Your task to perform on an android device: open a bookmark in the chrome app Image 0: 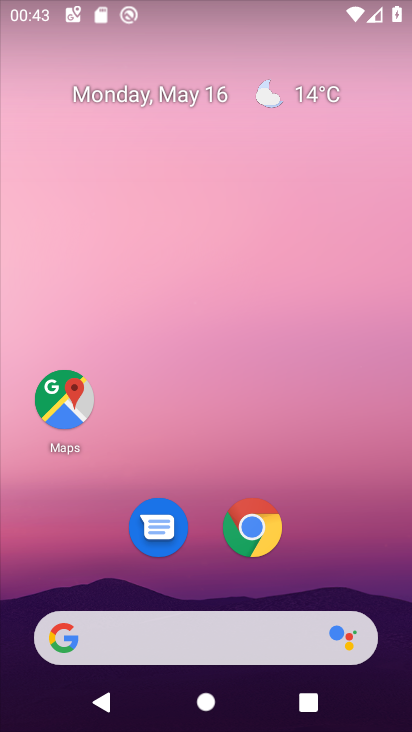
Step 0: click (257, 530)
Your task to perform on an android device: open a bookmark in the chrome app Image 1: 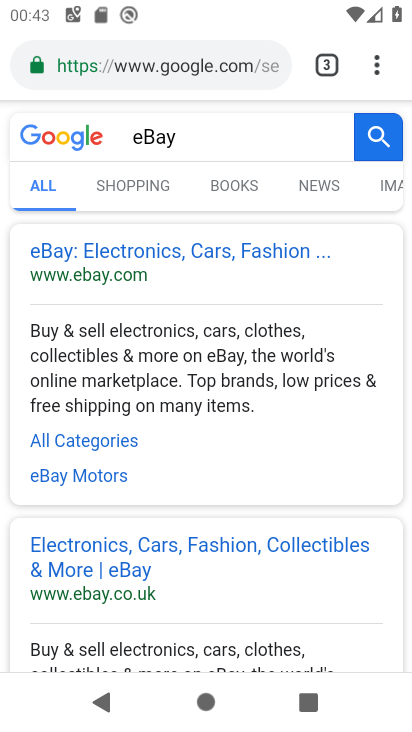
Step 1: click (381, 67)
Your task to perform on an android device: open a bookmark in the chrome app Image 2: 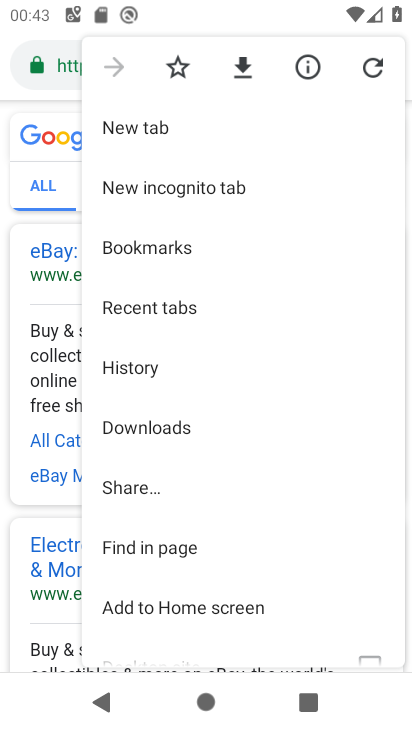
Step 2: click (167, 249)
Your task to perform on an android device: open a bookmark in the chrome app Image 3: 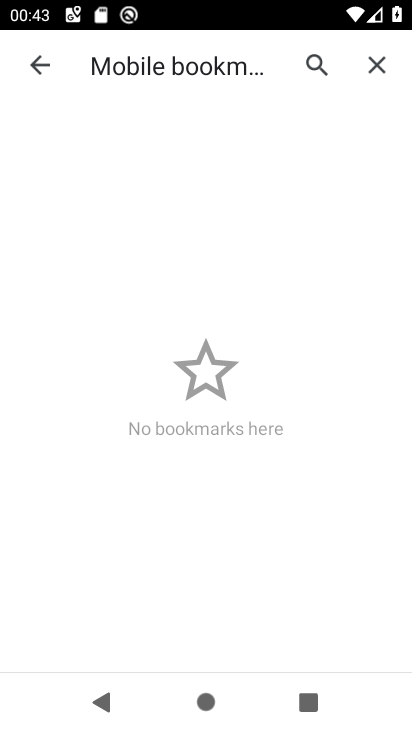
Step 3: click (373, 67)
Your task to perform on an android device: open a bookmark in the chrome app Image 4: 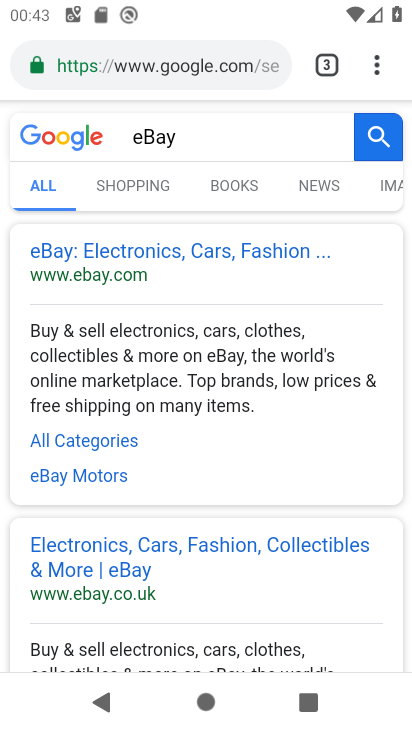
Step 4: click (379, 66)
Your task to perform on an android device: open a bookmark in the chrome app Image 5: 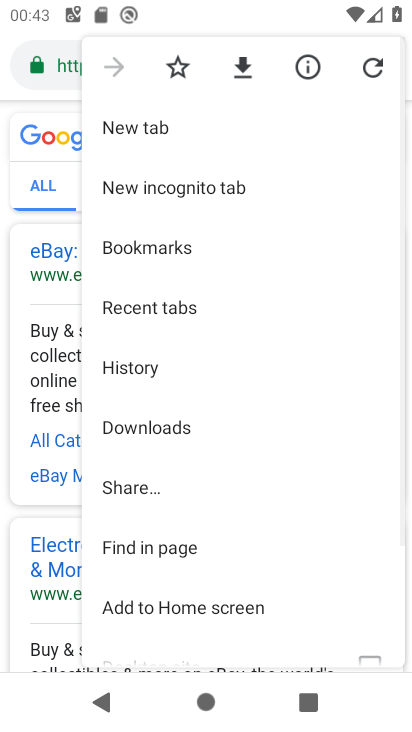
Step 5: click (130, 134)
Your task to perform on an android device: open a bookmark in the chrome app Image 6: 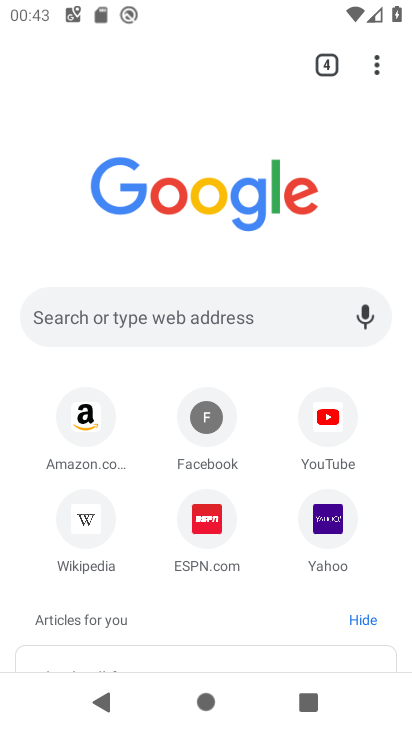
Step 6: click (90, 547)
Your task to perform on an android device: open a bookmark in the chrome app Image 7: 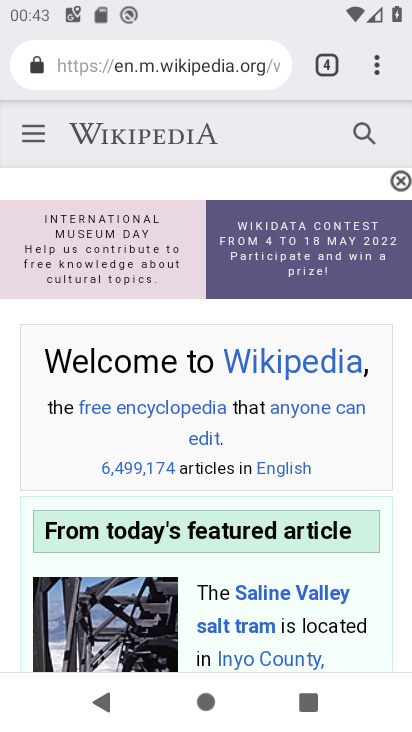
Step 7: task complete